Your task to perform on an android device: move an email to a new category in the gmail app Image 0: 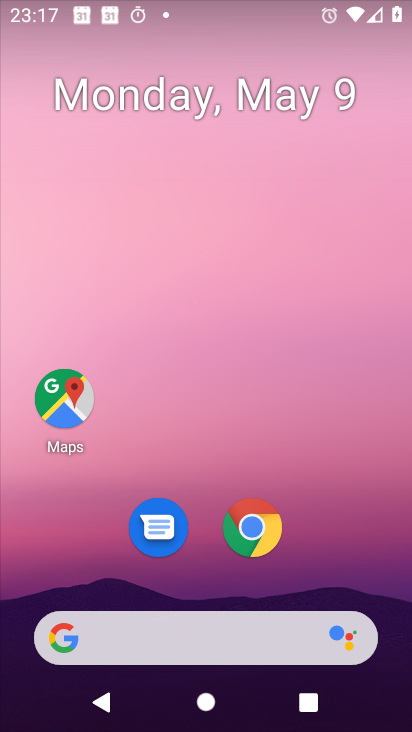
Step 0: drag from (202, 579) to (200, 77)
Your task to perform on an android device: move an email to a new category in the gmail app Image 1: 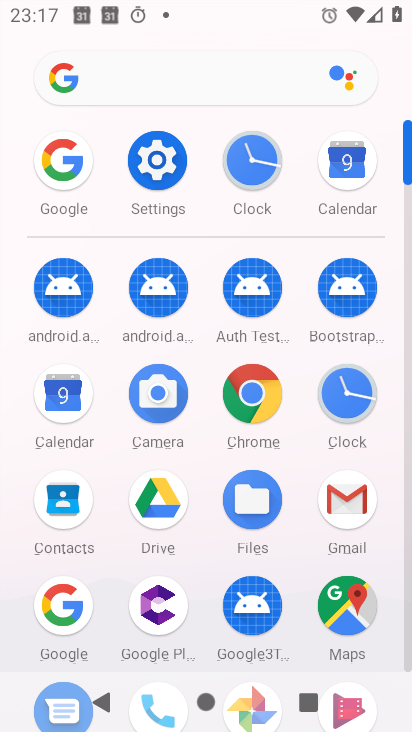
Step 1: click (344, 503)
Your task to perform on an android device: move an email to a new category in the gmail app Image 2: 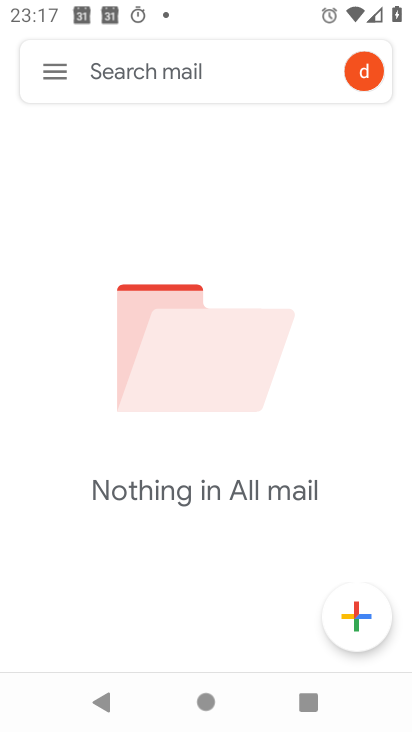
Step 2: click (47, 67)
Your task to perform on an android device: move an email to a new category in the gmail app Image 3: 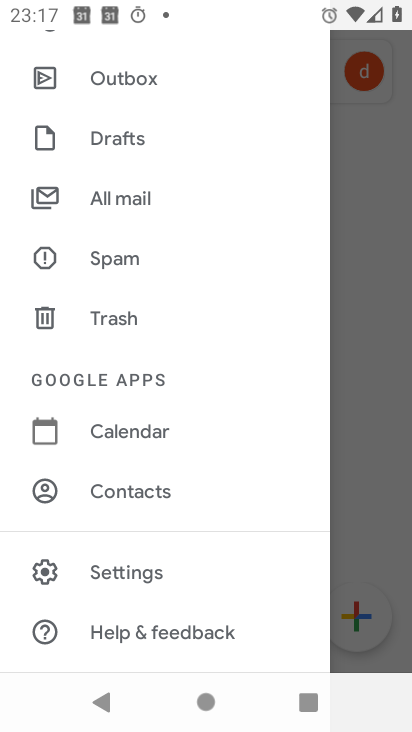
Step 3: click (120, 194)
Your task to perform on an android device: move an email to a new category in the gmail app Image 4: 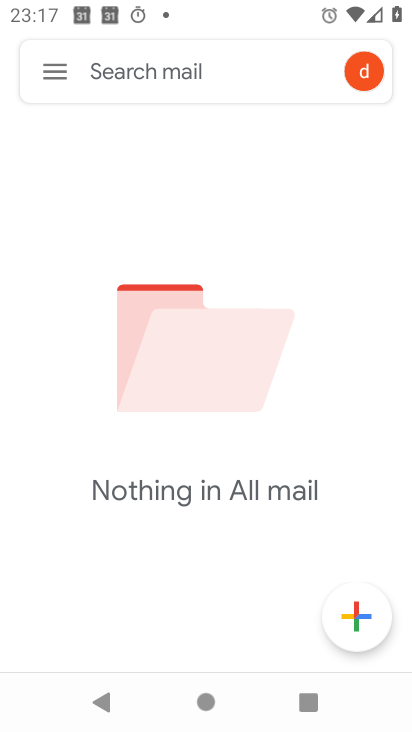
Step 4: task complete